Your task to perform on an android device: open sync settings in chrome Image 0: 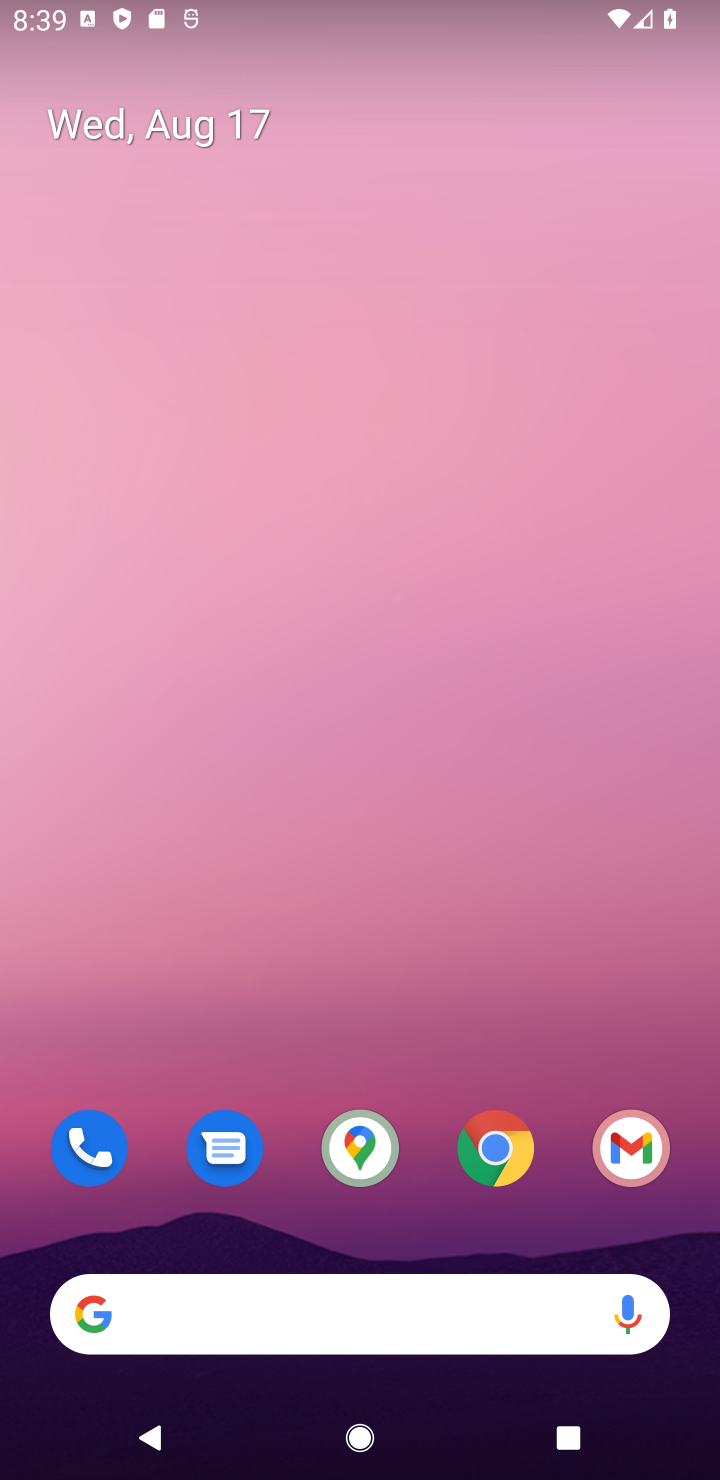
Step 0: click (495, 1150)
Your task to perform on an android device: open sync settings in chrome Image 1: 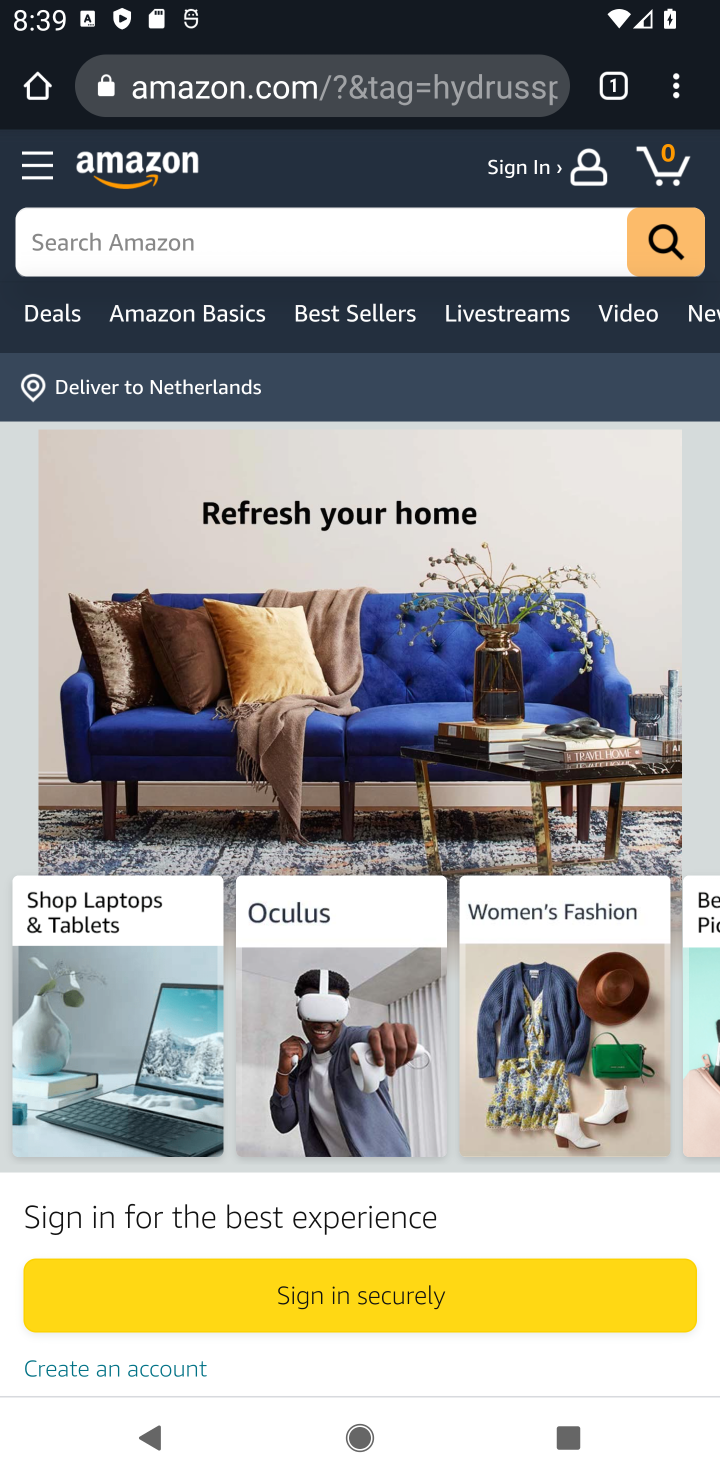
Step 1: click (667, 101)
Your task to perform on an android device: open sync settings in chrome Image 2: 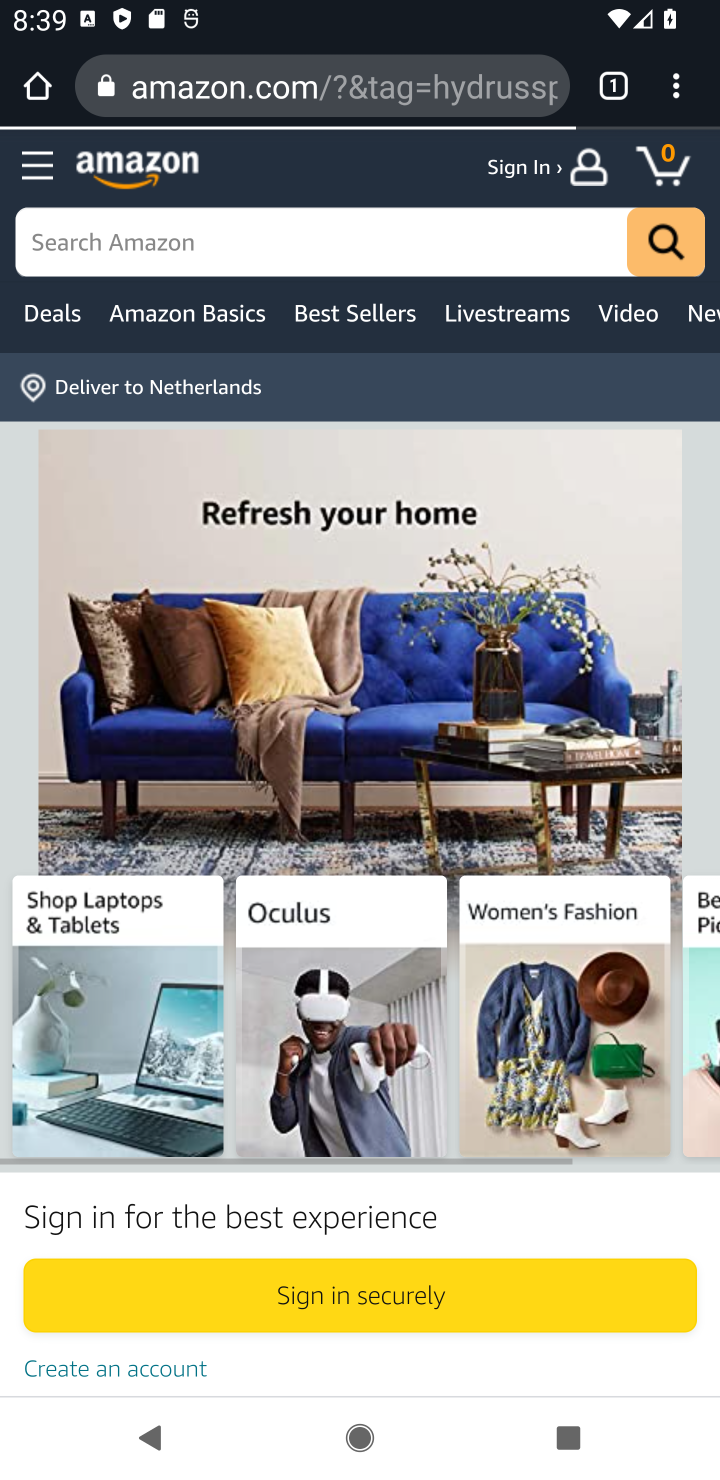
Step 2: click (667, 101)
Your task to perform on an android device: open sync settings in chrome Image 3: 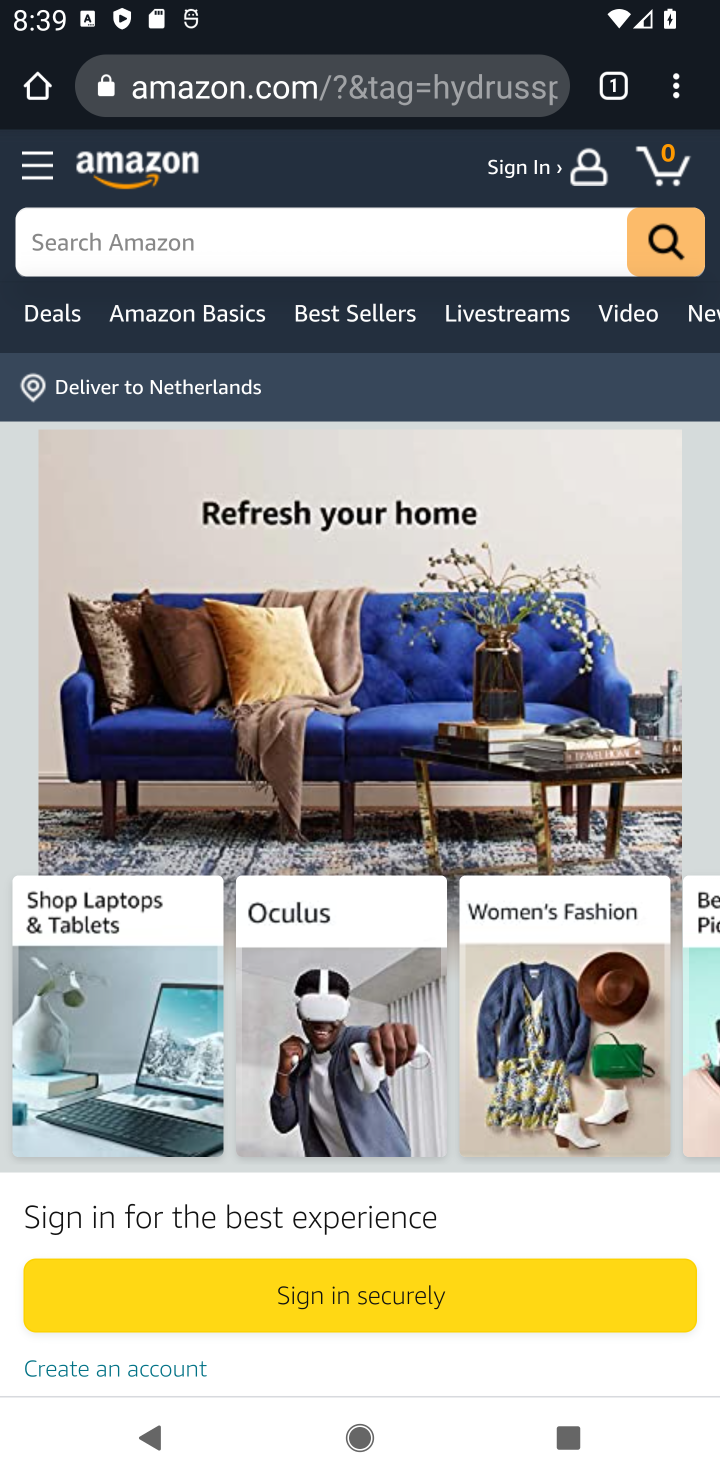
Step 3: click (670, 101)
Your task to perform on an android device: open sync settings in chrome Image 4: 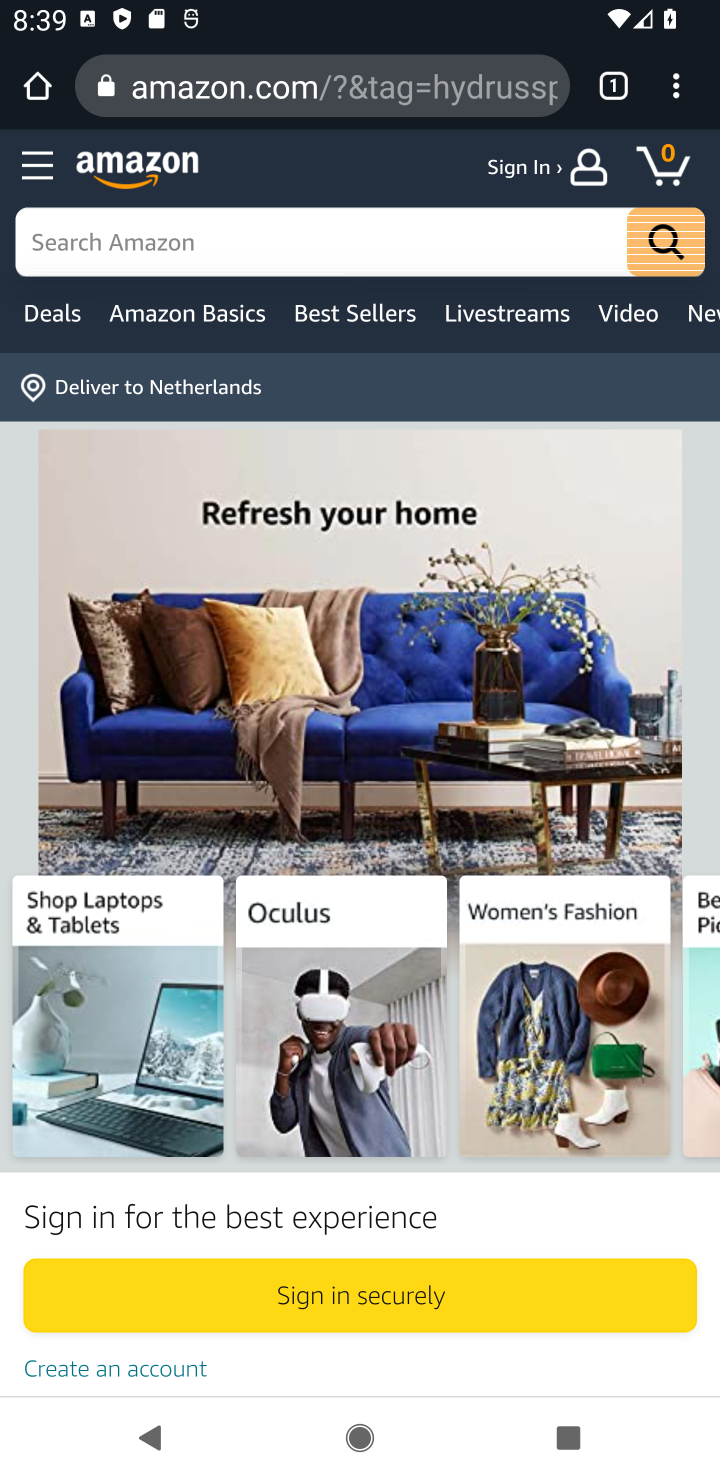
Step 4: click (682, 102)
Your task to perform on an android device: open sync settings in chrome Image 5: 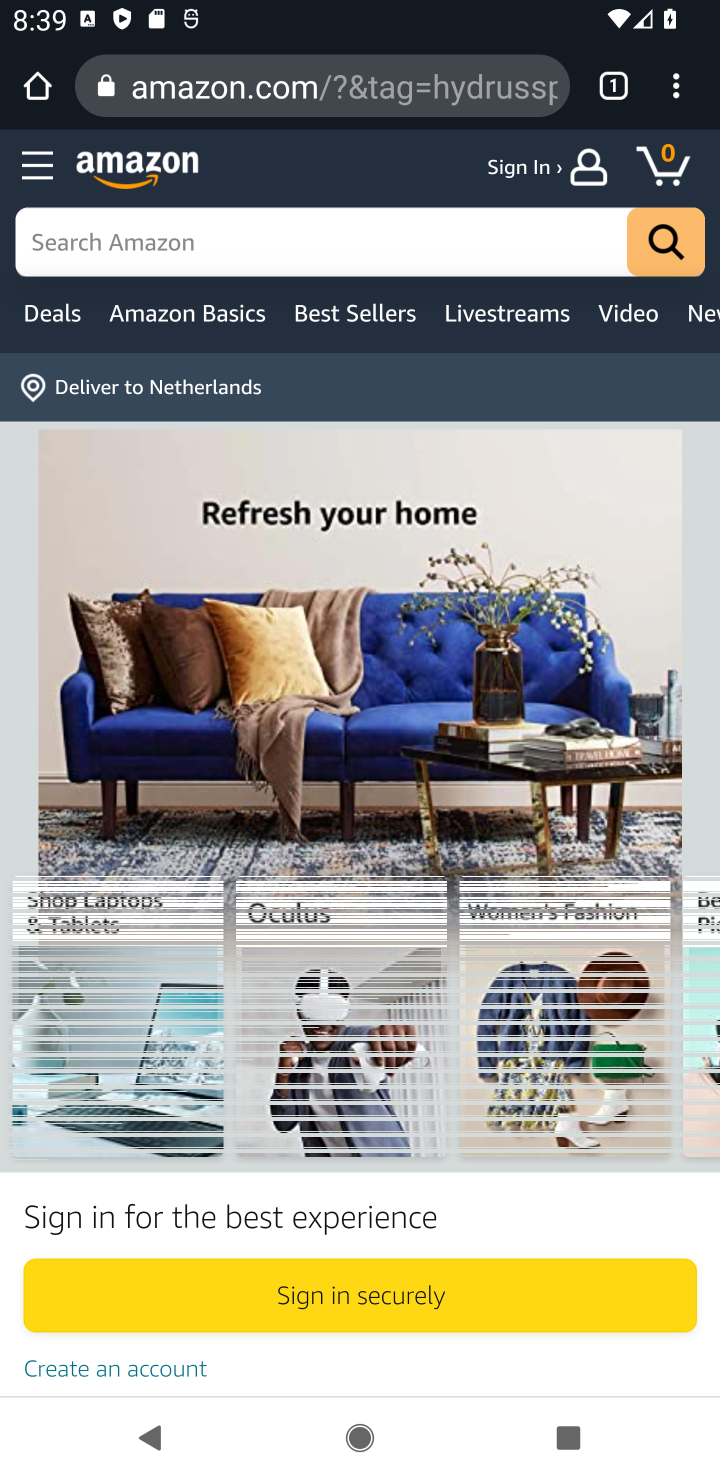
Step 5: click (670, 107)
Your task to perform on an android device: open sync settings in chrome Image 6: 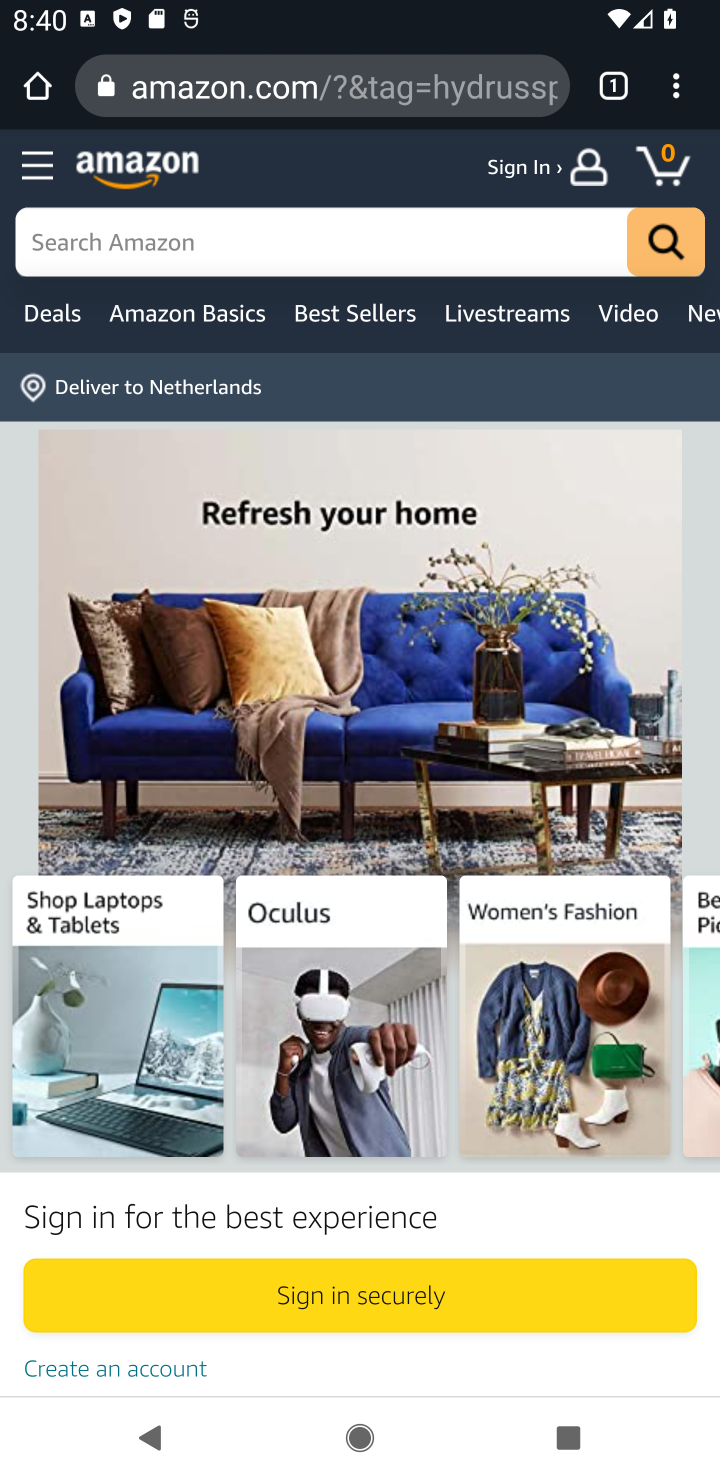
Step 6: click (668, 107)
Your task to perform on an android device: open sync settings in chrome Image 7: 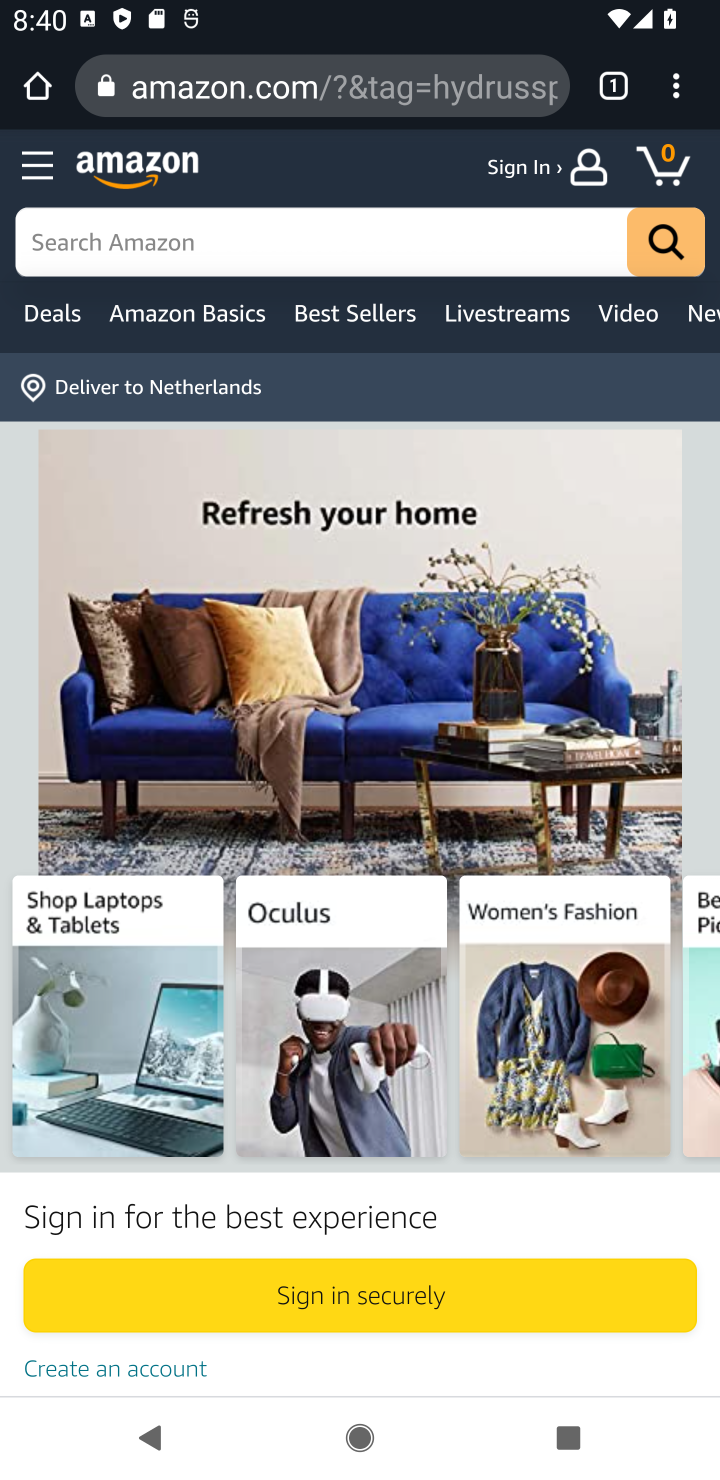
Step 7: click (668, 91)
Your task to perform on an android device: open sync settings in chrome Image 8: 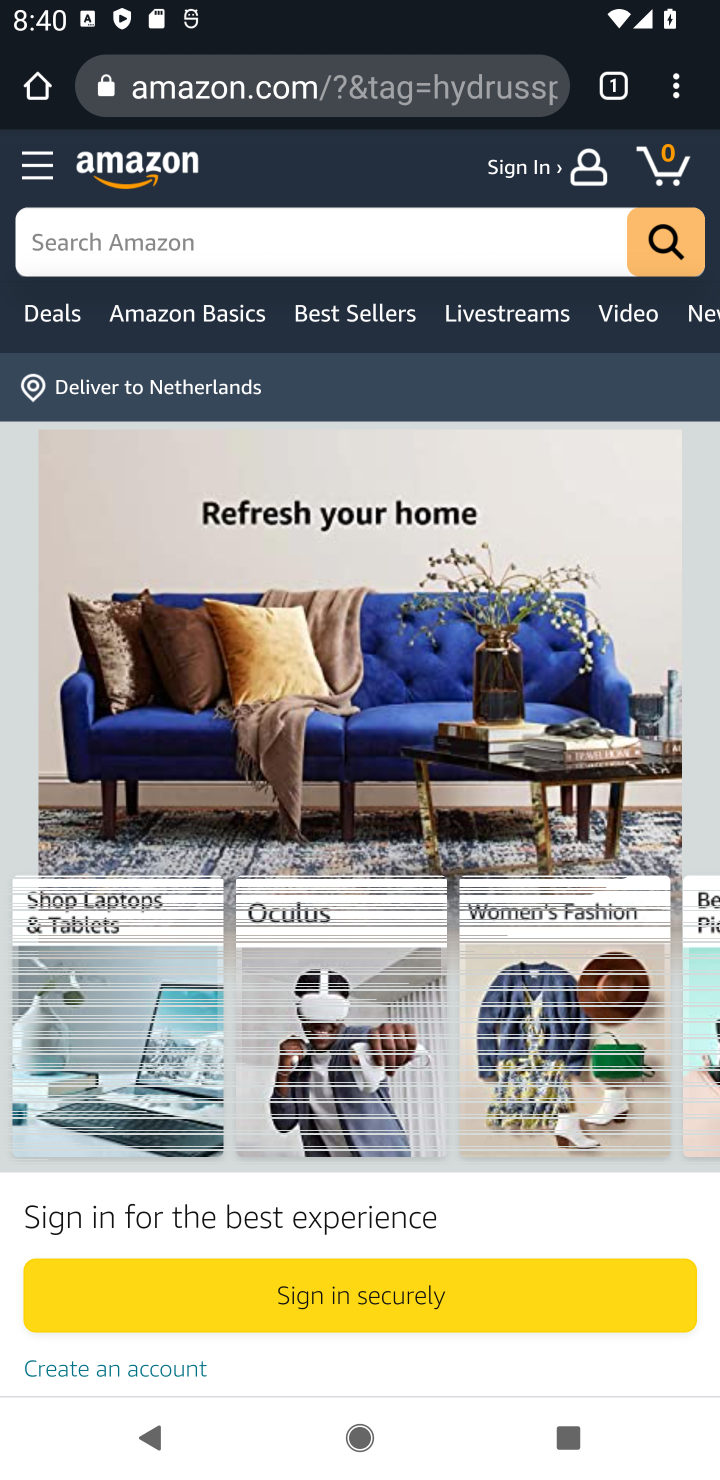
Step 8: click (672, 96)
Your task to perform on an android device: open sync settings in chrome Image 9: 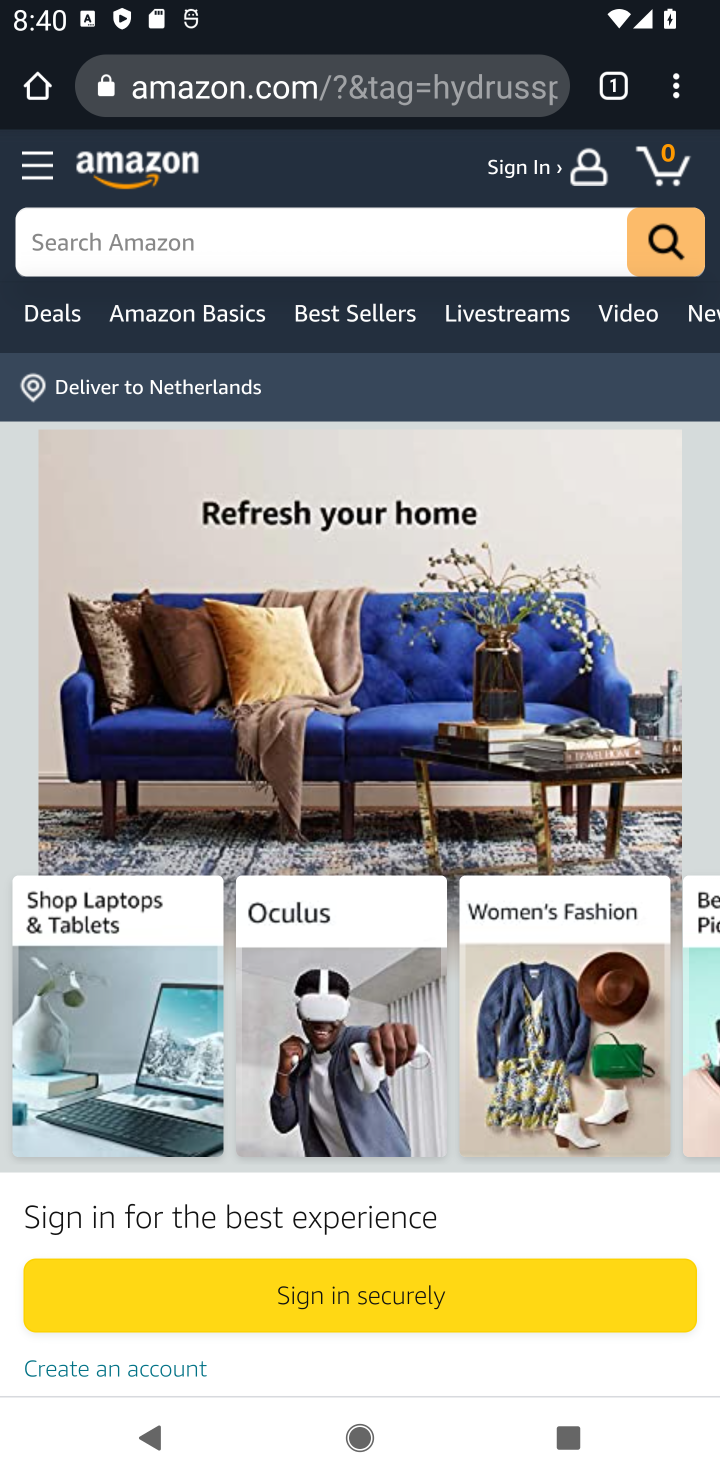
Step 9: click (672, 104)
Your task to perform on an android device: open sync settings in chrome Image 10: 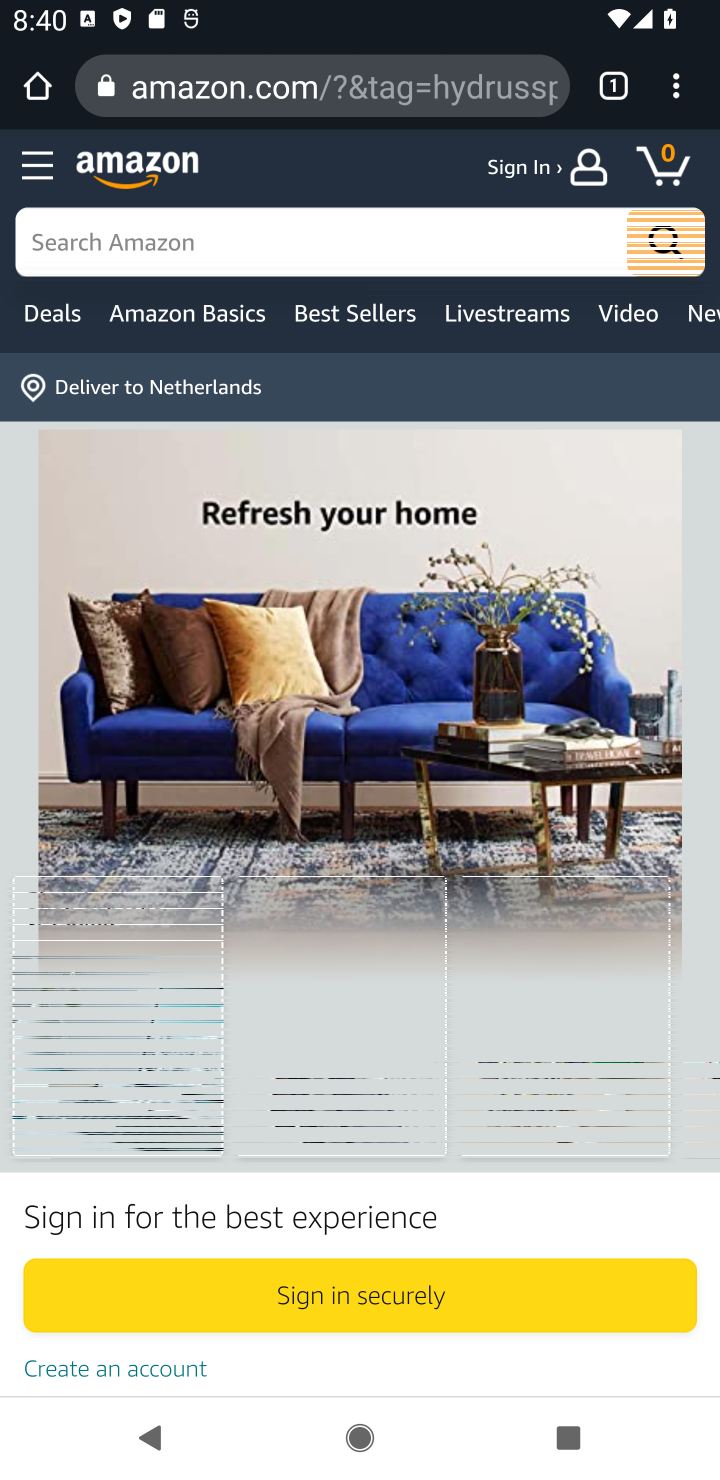
Step 10: click (672, 89)
Your task to perform on an android device: open sync settings in chrome Image 11: 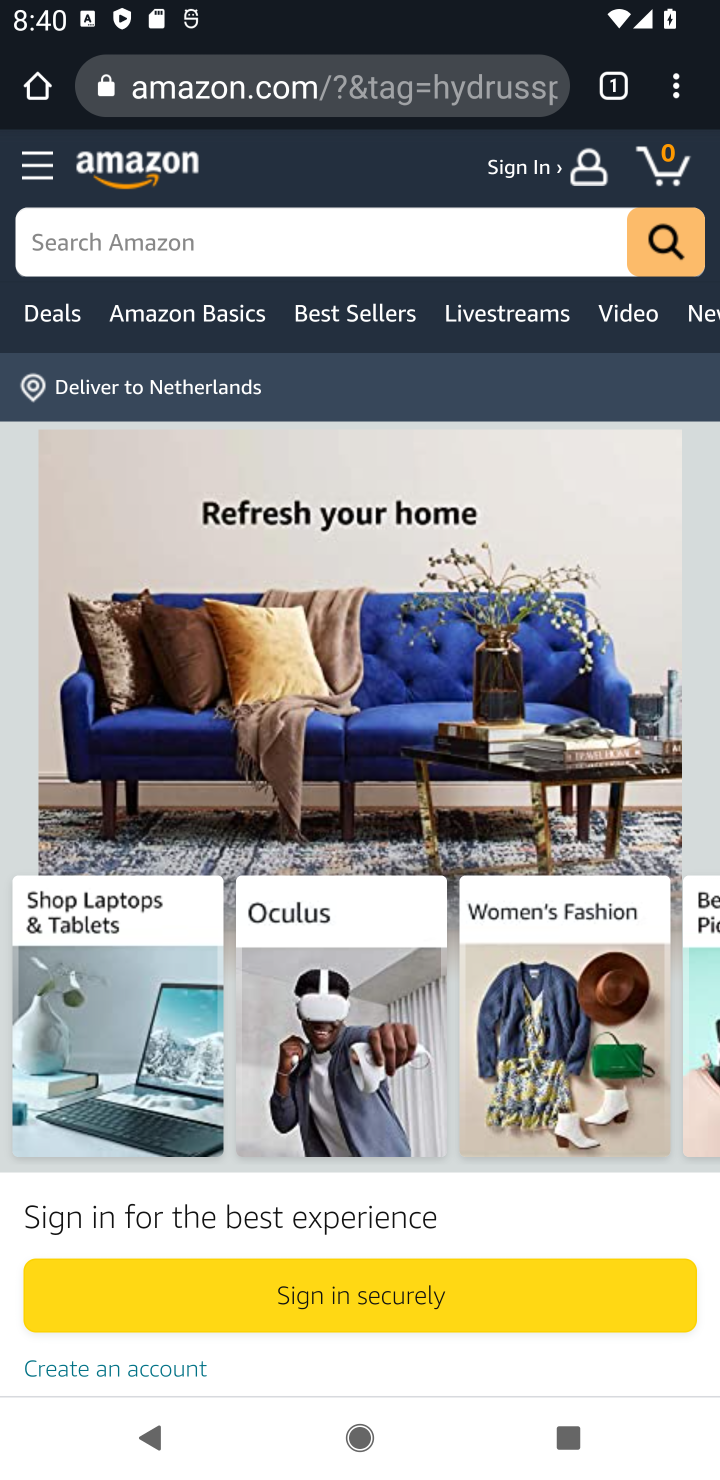
Step 11: click (679, 99)
Your task to perform on an android device: open sync settings in chrome Image 12: 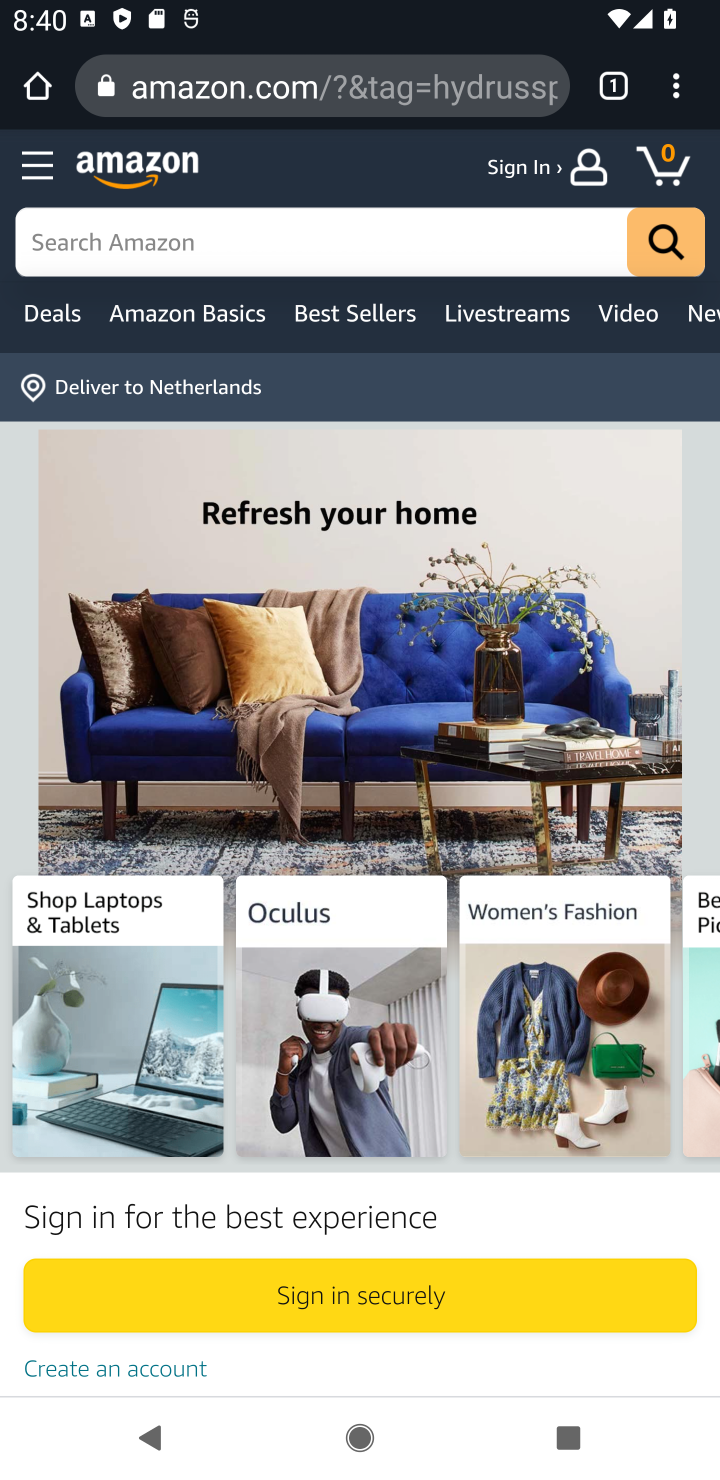
Step 12: click (682, 95)
Your task to perform on an android device: open sync settings in chrome Image 13: 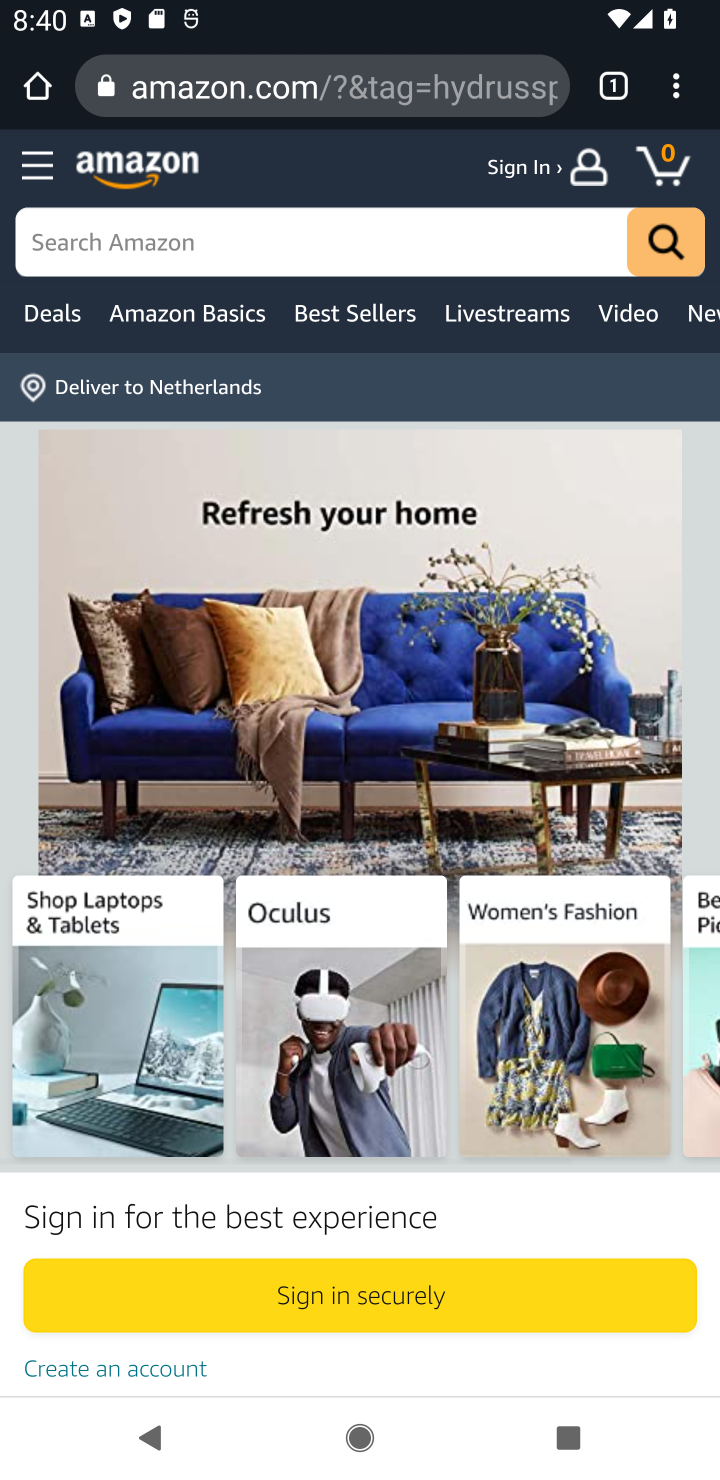
Step 13: click (674, 102)
Your task to perform on an android device: open sync settings in chrome Image 14: 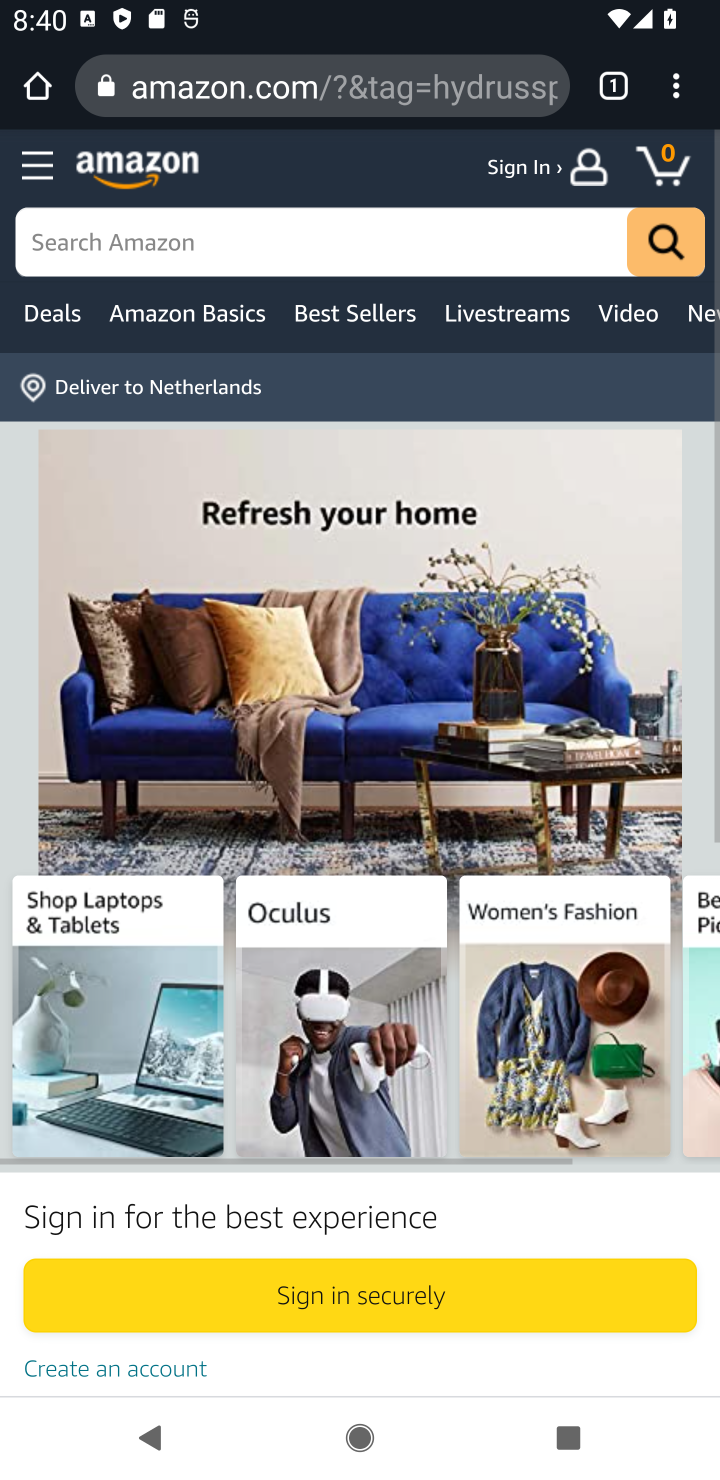
Step 14: task complete